Your task to perform on an android device: What's the weather? Image 0: 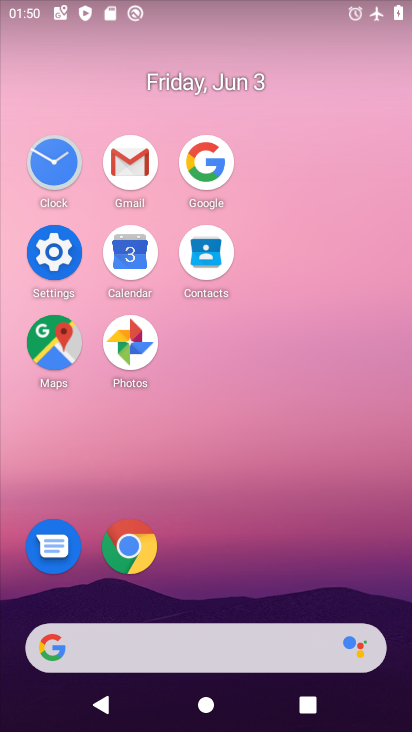
Step 0: click (211, 169)
Your task to perform on an android device: What's the weather? Image 1: 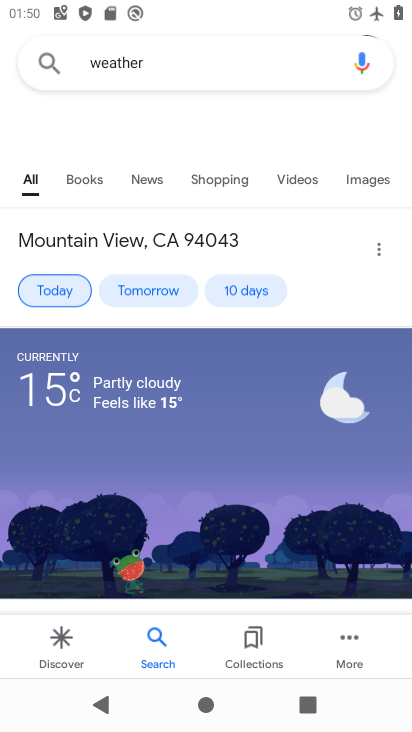
Step 1: task complete